Your task to perform on an android device: Open the stopwatch Image 0: 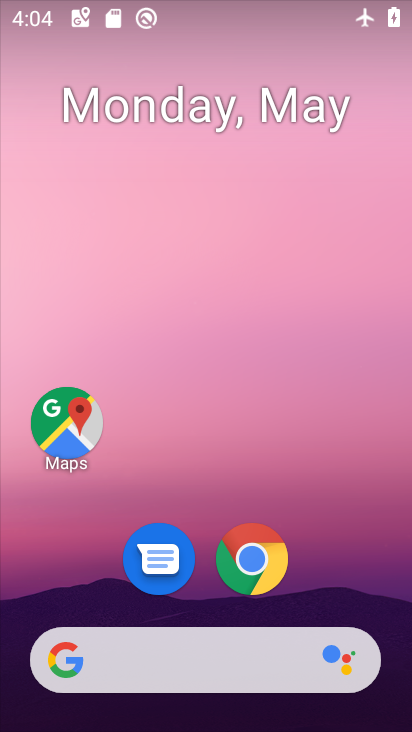
Step 0: drag from (313, 609) to (274, 88)
Your task to perform on an android device: Open the stopwatch Image 1: 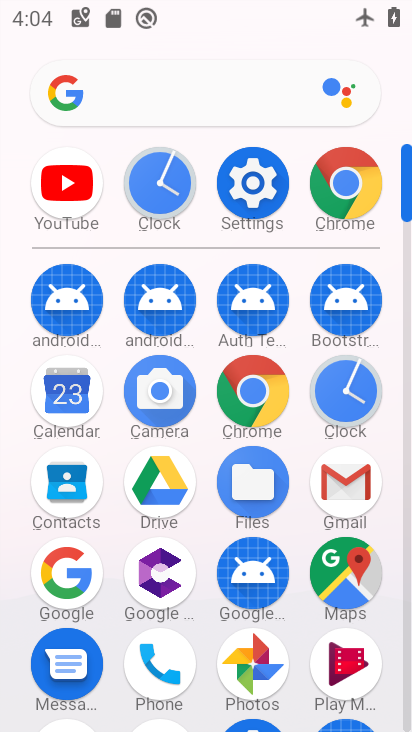
Step 1: click (152, 200)
Your task to perform on an android device: Open the stopwatch Image 2: 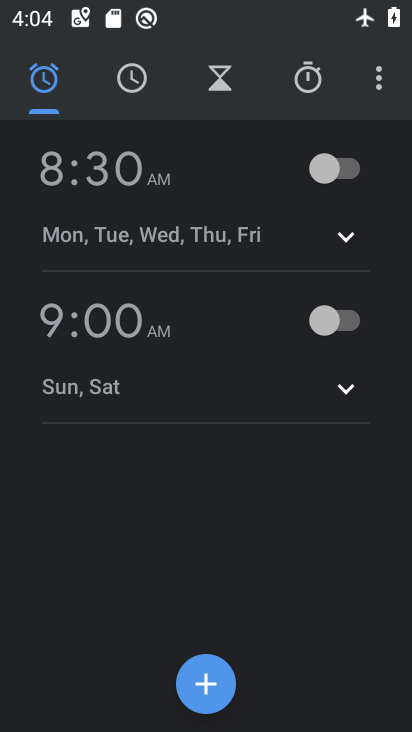
Step 2: click (313, 73)
Your task to perform on an android device: Open the stopwatch Image 3: 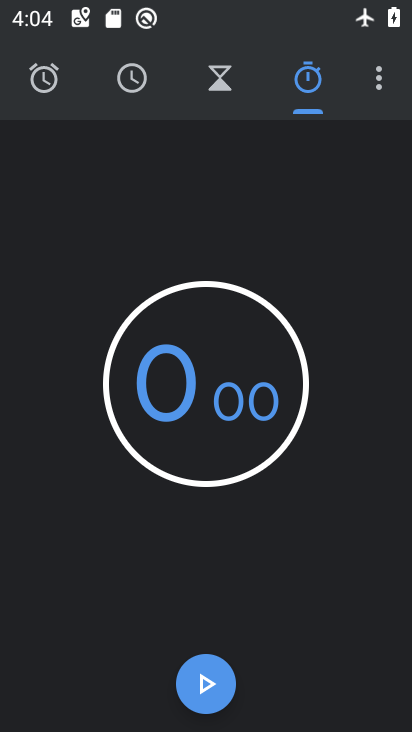
Step 3: task complete